Your task to perform on an android device: change the clock display to analog Image 0: 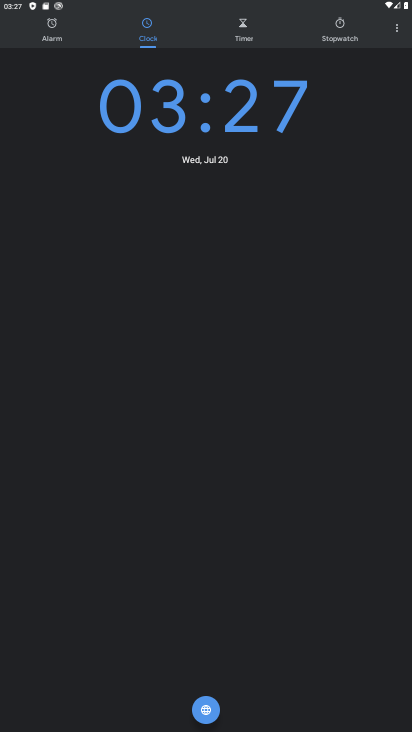
Step 0: click (401, 31)
Your task to perform on an android device: change the clock display to analog Image 1: 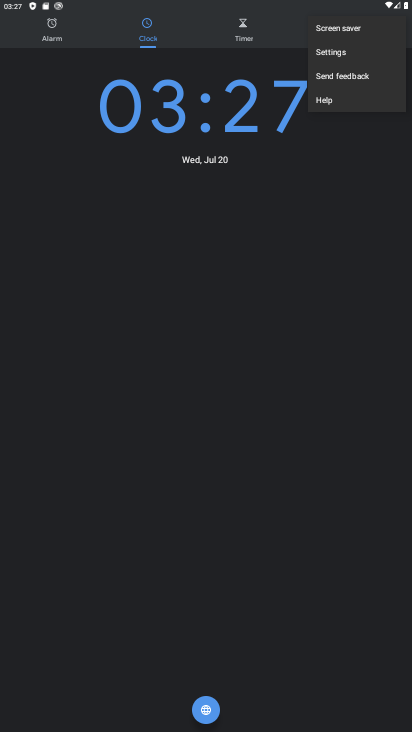
Step 1: click (376, 55)
Your task to perform on an android device: change the clock display to analog Image 2: 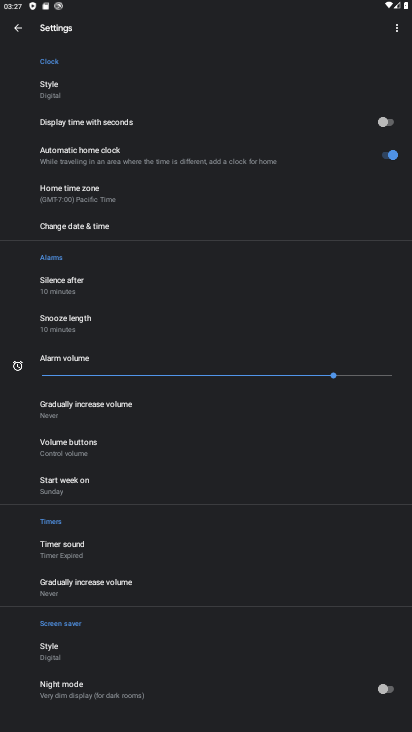
Step 2: click (56, 81)
Your task to perform on an android device: change the clock display to analog Image 3: 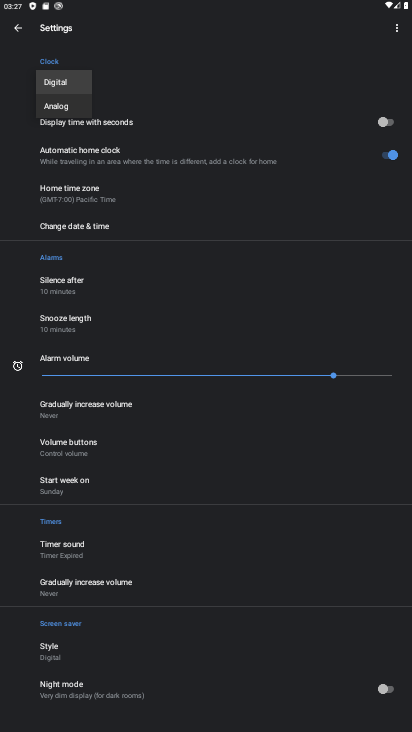
Step 3: click (73, 108)
Your task to perform on an android device: change the clock display to analog Image 4: 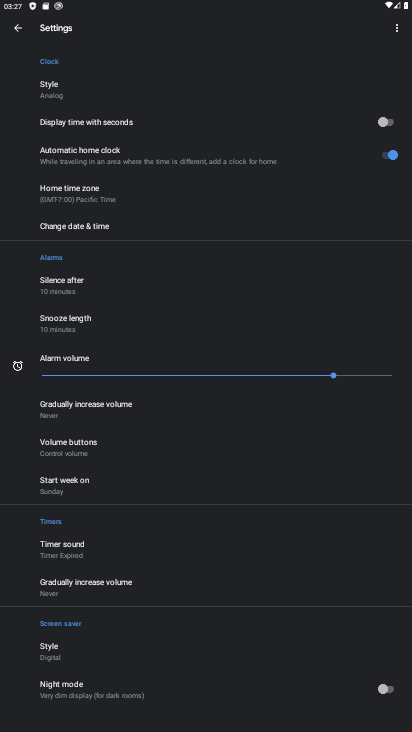
Step 4: task complete